Your task to perform on an android device: turn on translation in the chrome app Image 0: 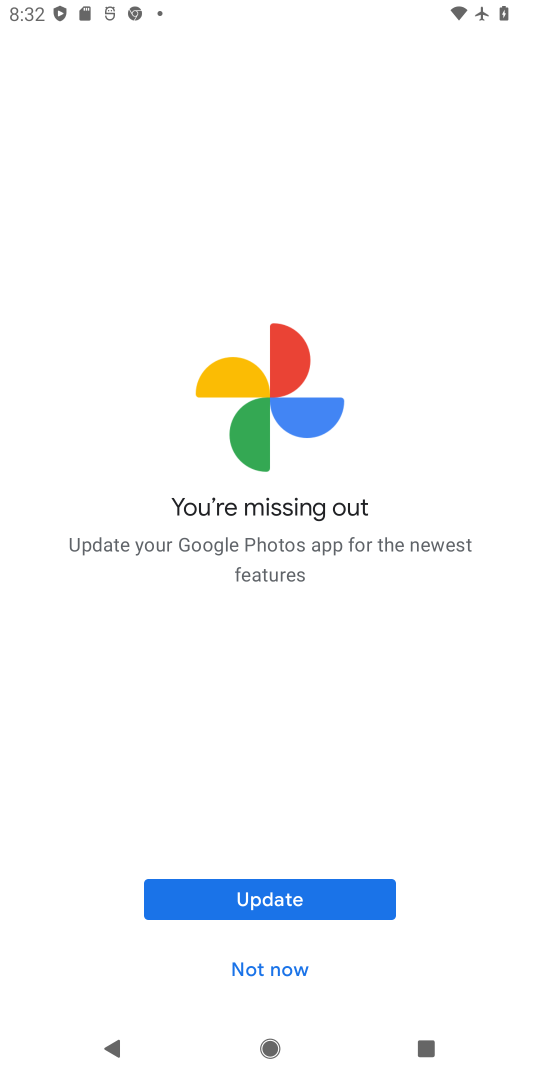
Step 0: press home button
Your task to perform on an android device: turn on translation in the chrome app Image 1: 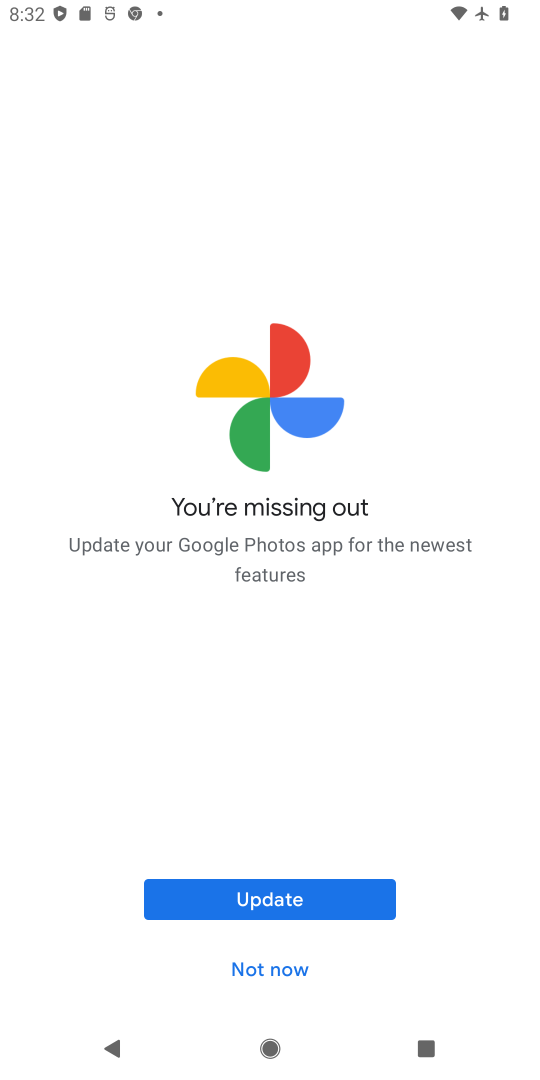
Step 1: press home button
Your task to perform on an android device: turn on translation in the chrome app Image 2: 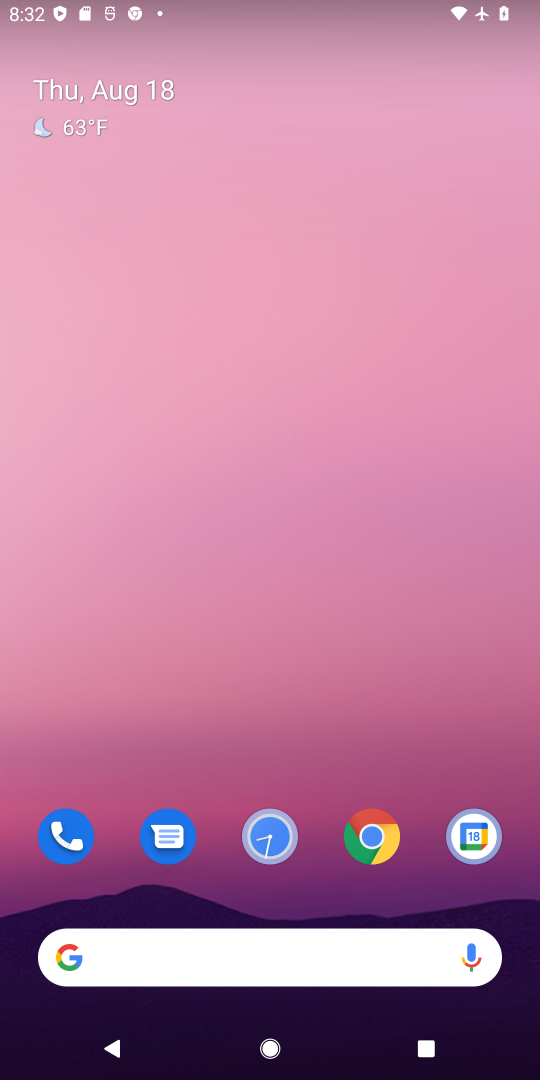
Step 2: drag from (440, 736) to (427, 0)
Your task to perform on an android device: turn on translation in the chrome app Image 3: 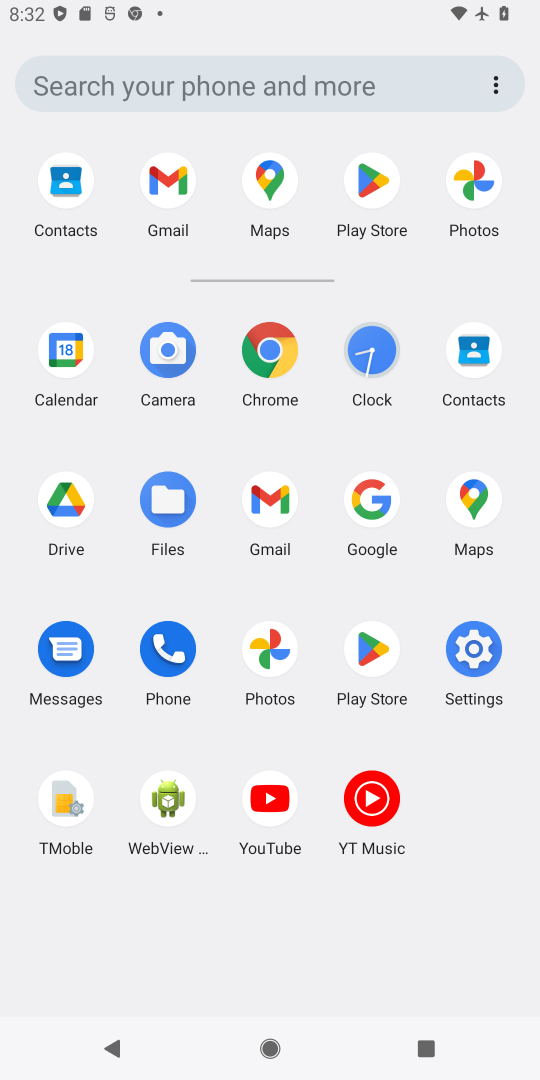
Step 3: click (264, 360)
Your task to perform on an android device: turn on translation in the chrome app Image 4: 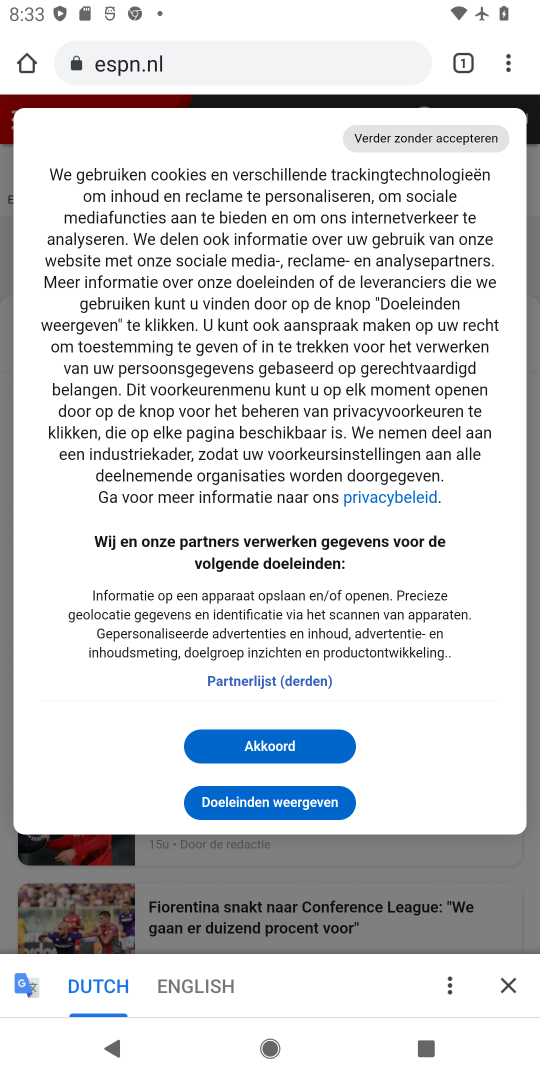
Step 4: drag from (518, 52) to (350, 832)
Your task to perform on an android device: turn on translation in the chrome app Image 5: 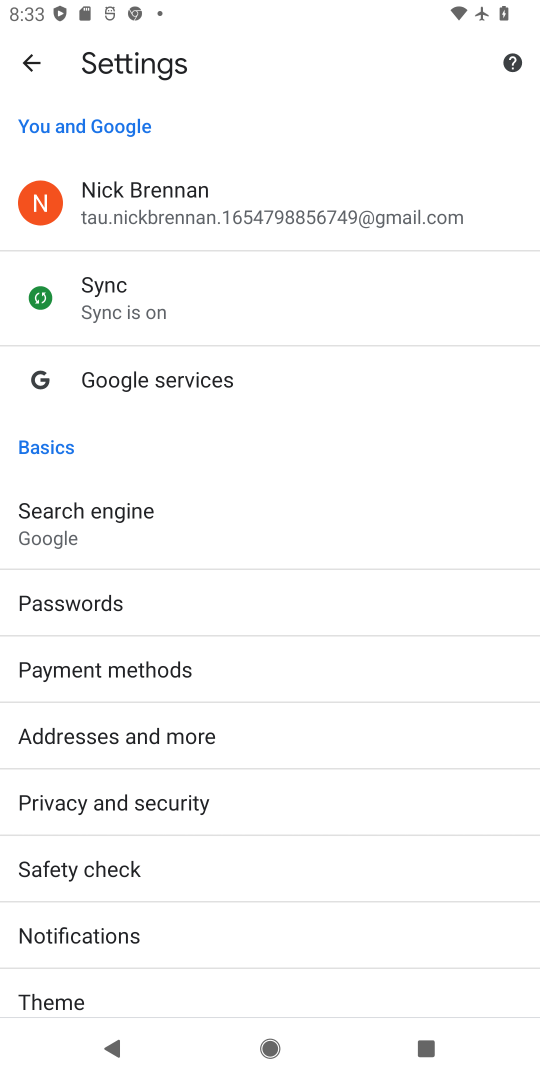
Step 5: drag from (348, 875) to (369, 162)
Your task to perform on an android device: turn on translation in the chrome app Image 6: 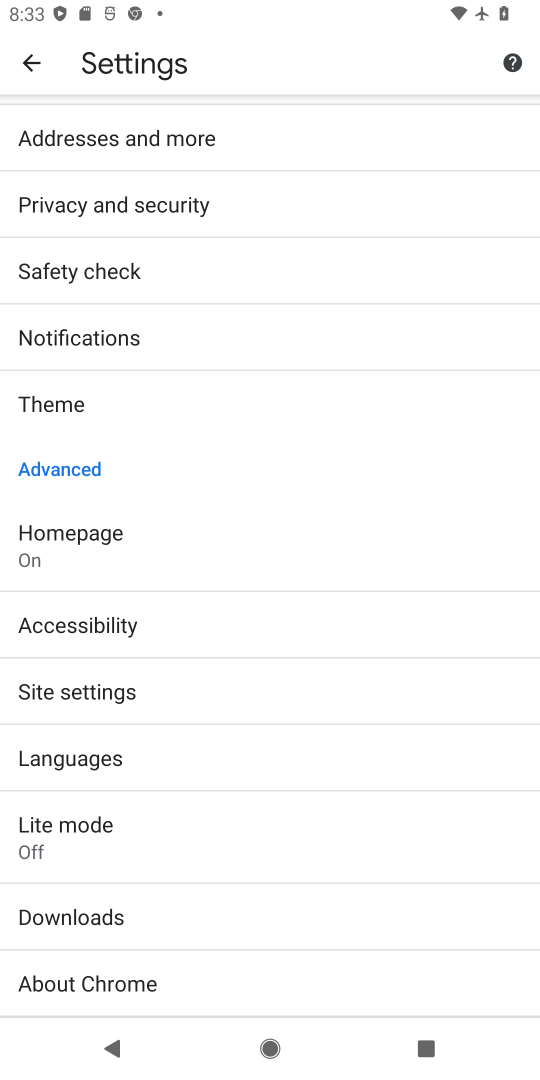
Step 6: drag from (340, 856) to (420, 206)
Your task to perform on an android device: turn on translation in the chrome app Image 7: 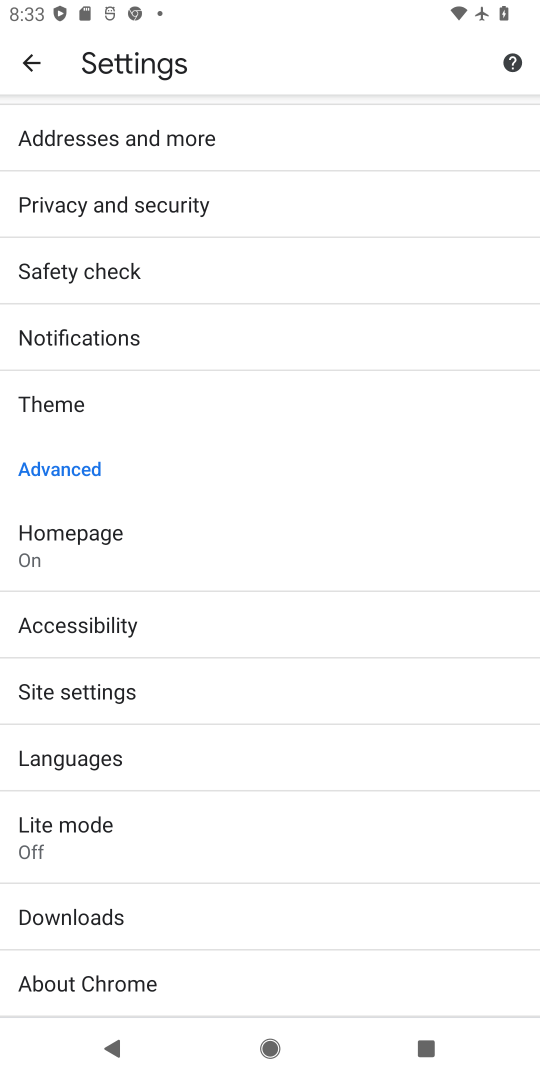
Step 7: click (101, 750)
Your task to perform on an android device: turn on translation in the chrome app Image 8: 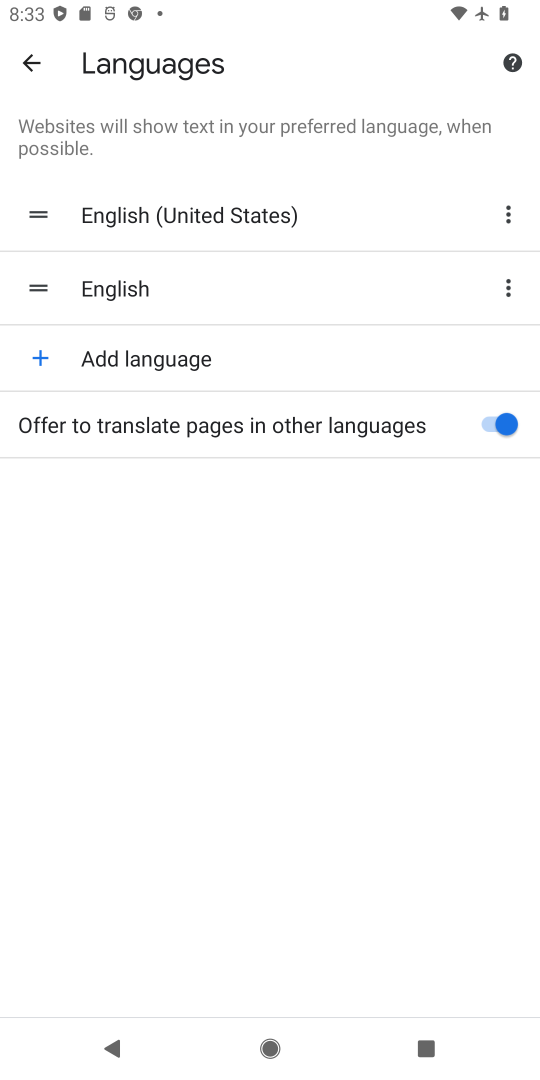
Step 8: task complete